Your task to perform on an android device: make emails show in primary in the gmail app Image 0: 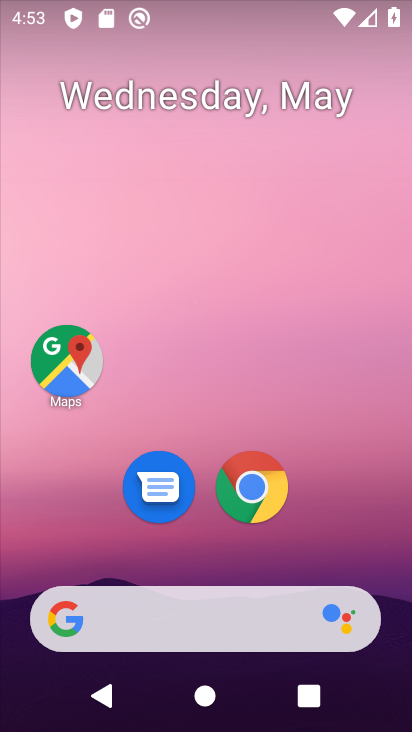
Step 0: drag from (370, 534) to (330, 0)
Your task to perform on an android device: make emails show in primary in the gmail app Image 1: 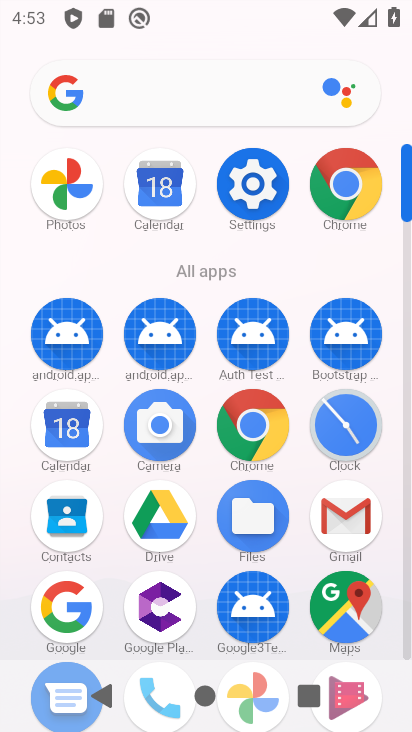
Step 1: click (360, 525)
Your task to perform on an android device: make emails show in primary in the gmail app Image 2: 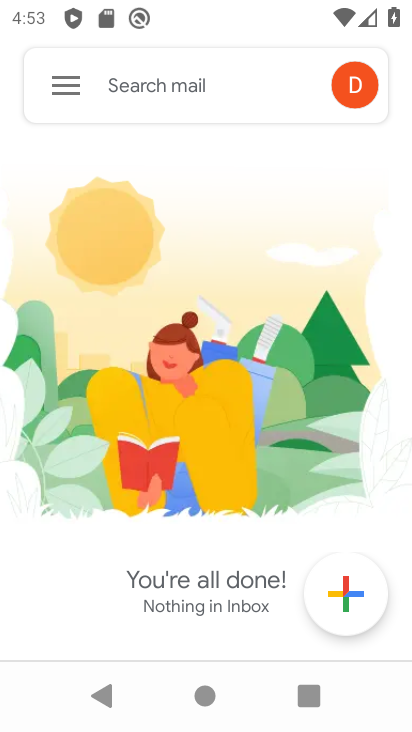
Step 2: click (80, 85)
Your task to perform on an android device: make emails show in primary in the gmail app Image 3: 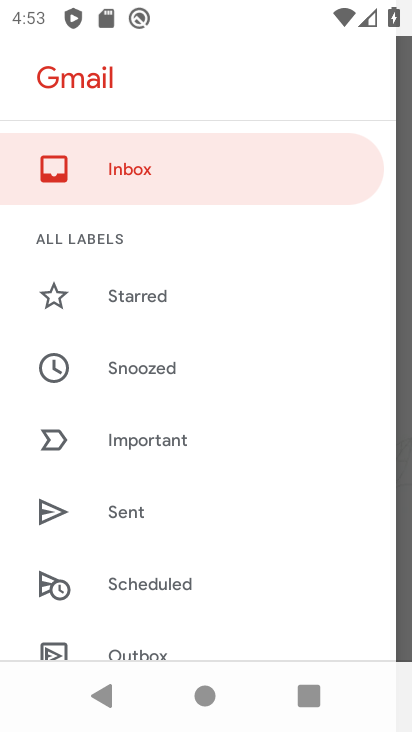
Step 3: drag from (170, 590) to (189, 394)
Your task to perform on an android device: make emails show in primary in the gmail app Image 4: 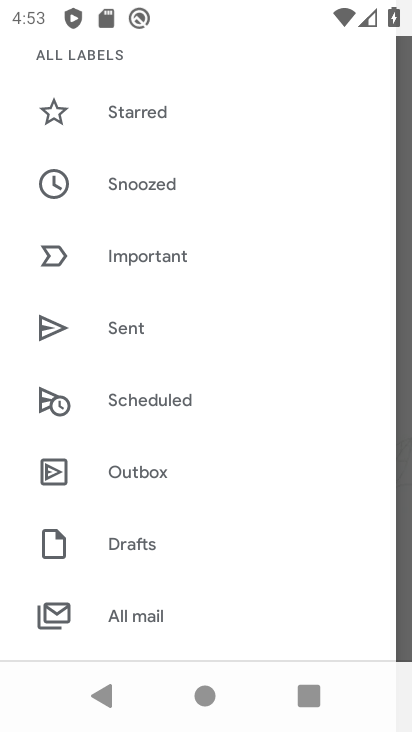
Step 4: drag from (250, 592) to (295, 257)
Your task to perform on an android device: make emails show in primary in the gmail app Image 5: 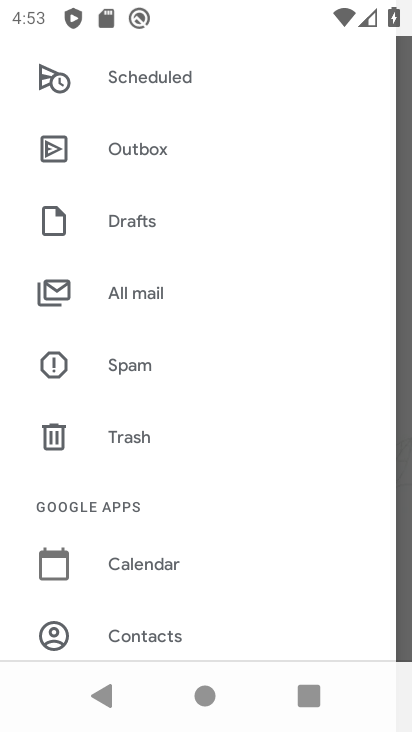
Step 5: drag from (200, 624) to (221, 351)
Your task to perform on an android device: make emails show in primary in the gmail app Image 6: 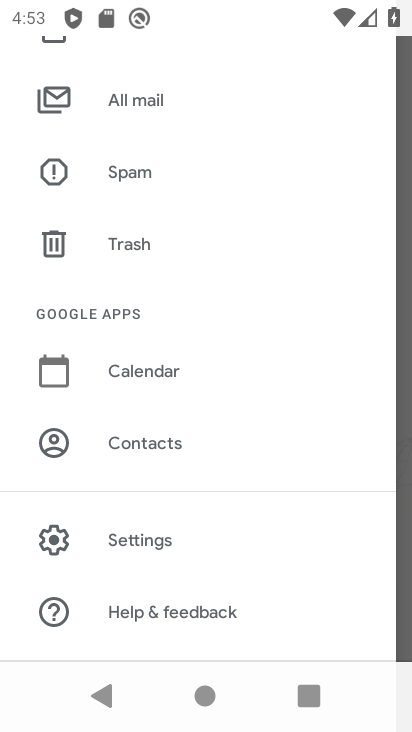
Step 6: click (193, 543)
Your task to perform on an android device: make emails show in primary in the gmail app Image 7: 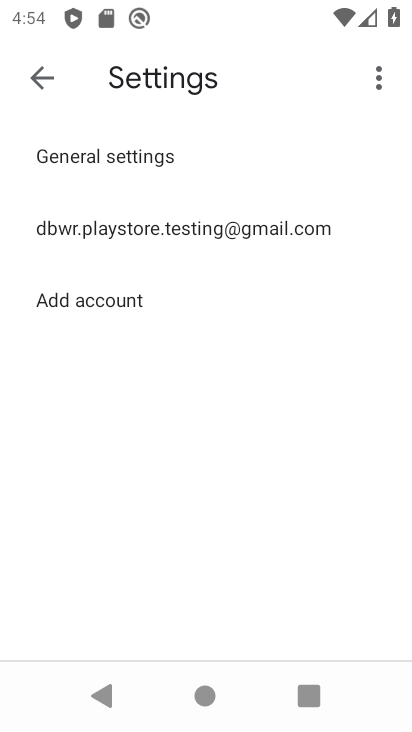
Step 7: click (90, 233)
Your task to perform on an android device: make emails show in primary in the gmail app Image 8: 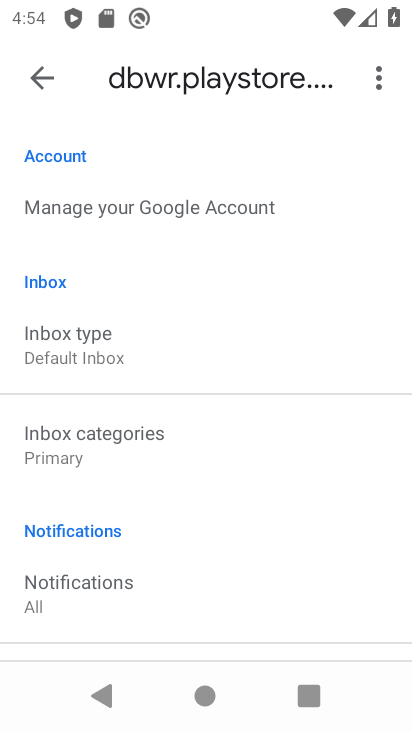
Step 8: task complete